Your task to perform on an android device: turn pop-ups on in chrome Image 0: 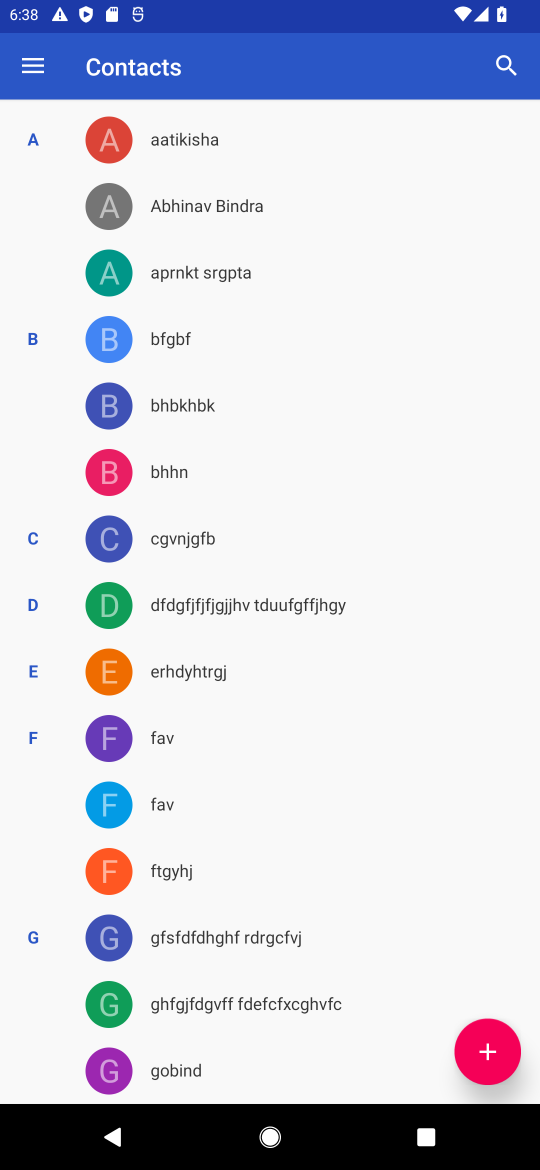
Step 0: press home button
Your task to perform on an android device: turn pop-ups on in chrome Image 1: 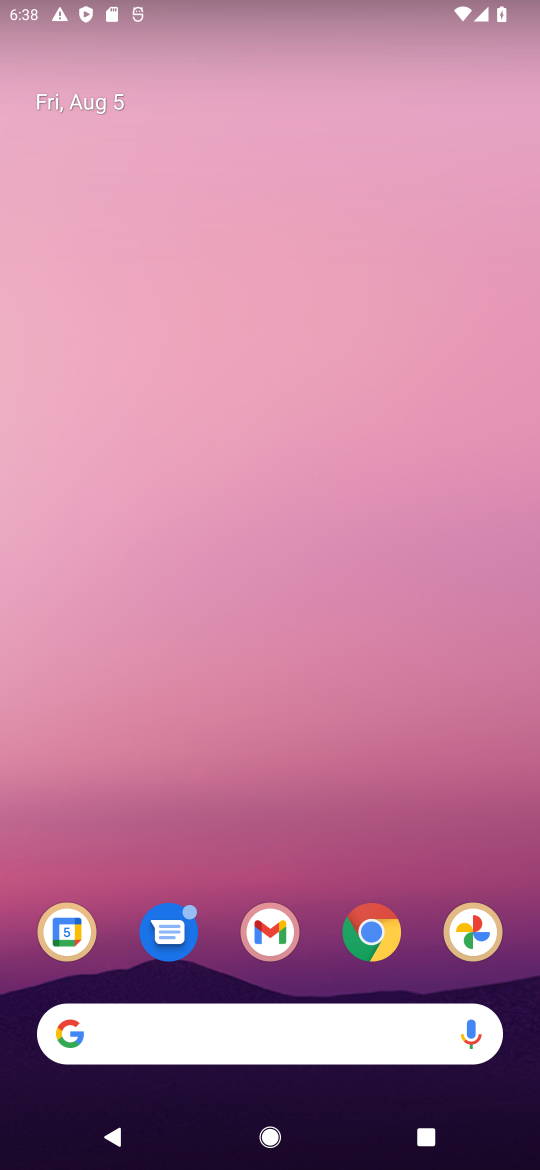
Step 1: click (373, 933)
Your task to perform on an android device: turn pop-ups on in chrome Image 2: 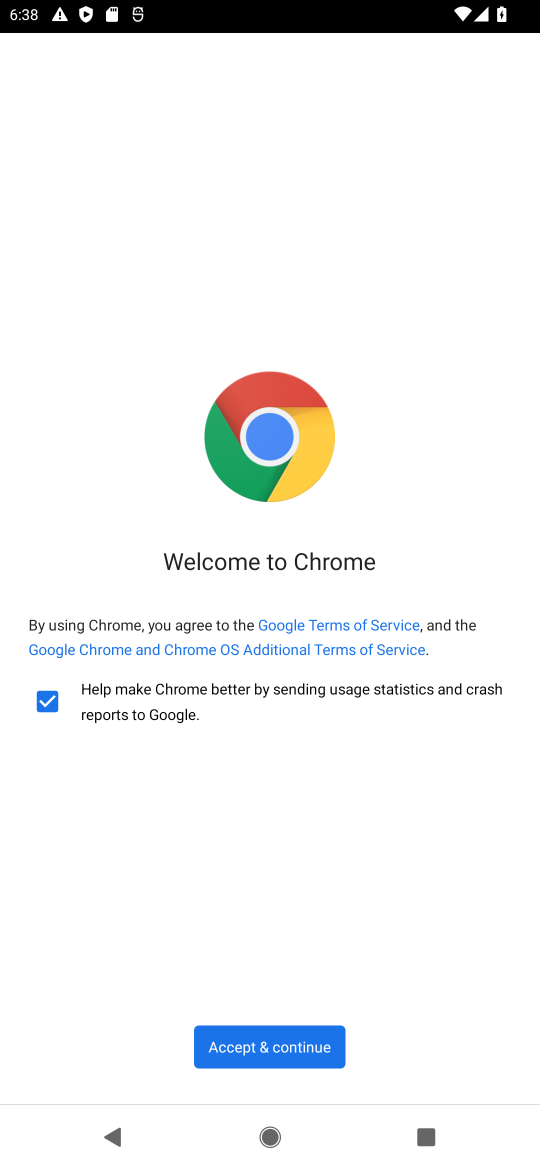
Step 2: click (282, 1047)
Your task to perform on an android device: turn pop-ups on in chrome Image 3: 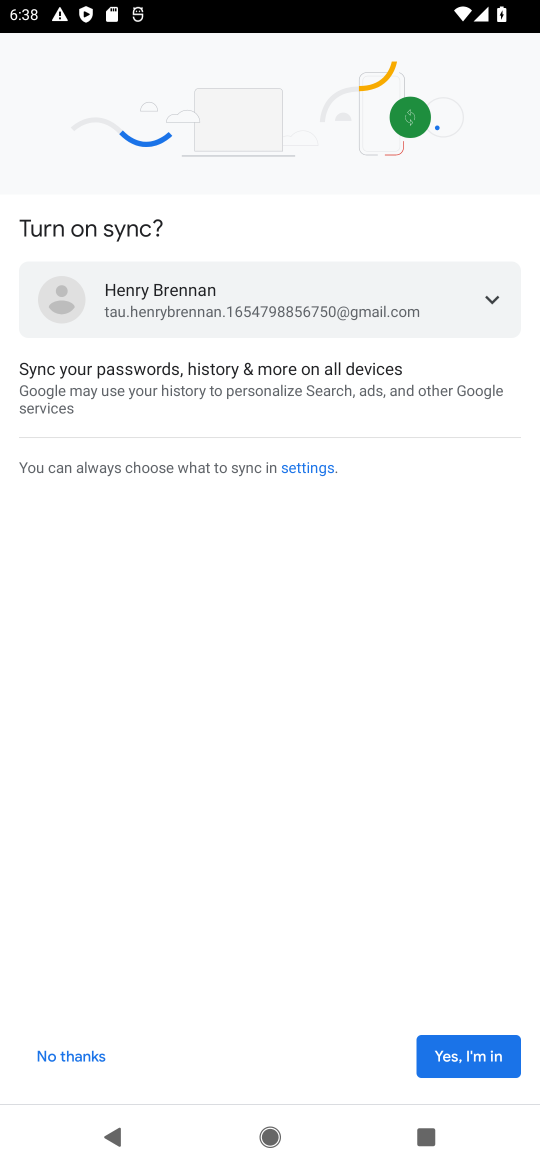
Step 3: click (469, 1060)
Your task to perform on an android device: turn pop-ups on in chrome Image 4: 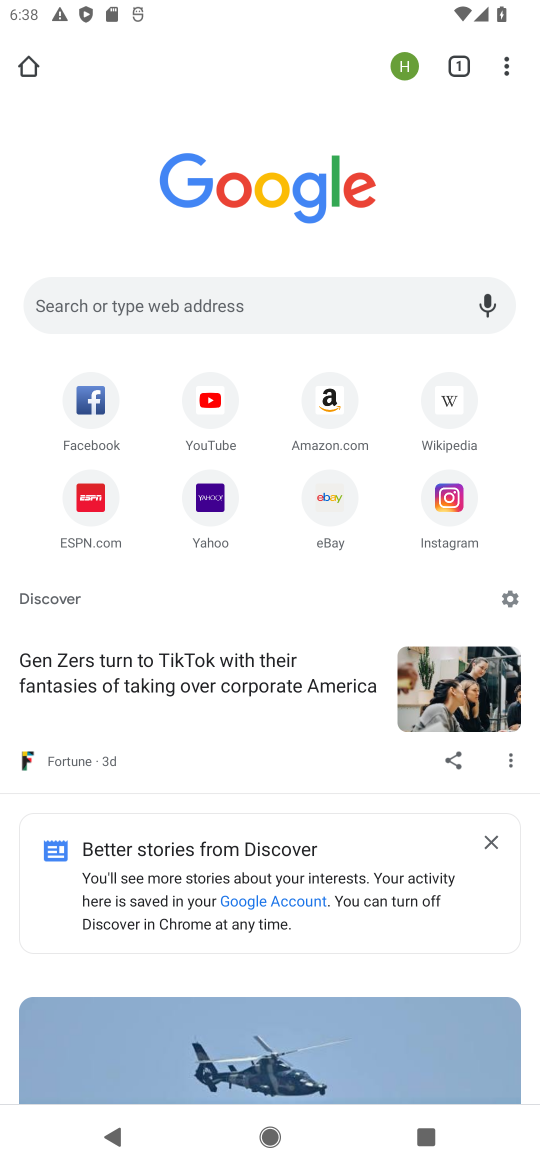
Step 4: click (504, 64)
Your task to perform on an android device: turn pop-ups on in chrome Image 5: 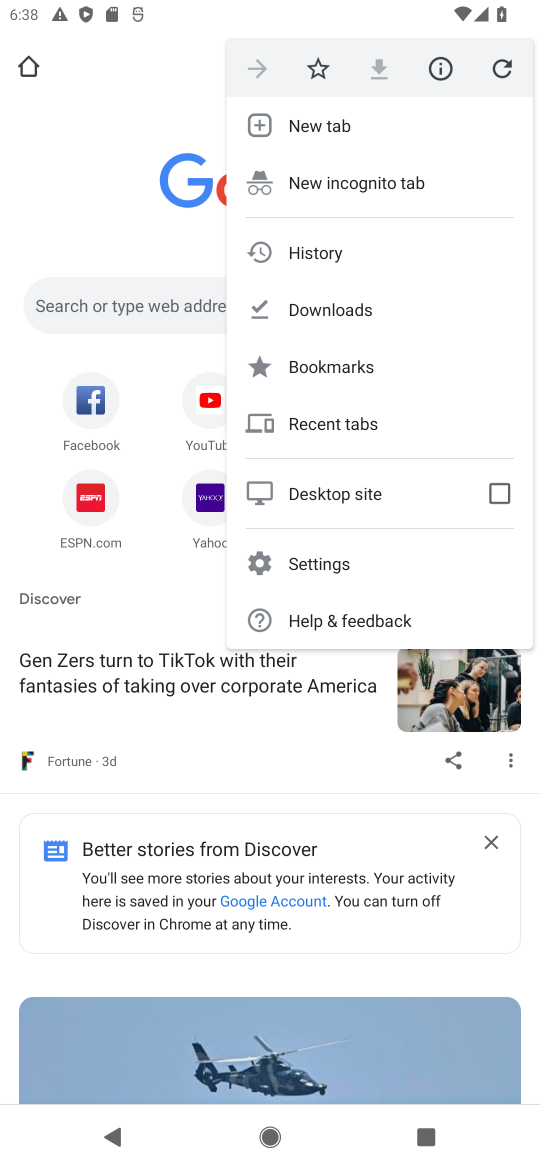
Step 5: click (332, 561)
Your task to perform on an android device: turn pop-ups on in chrome Image 6: 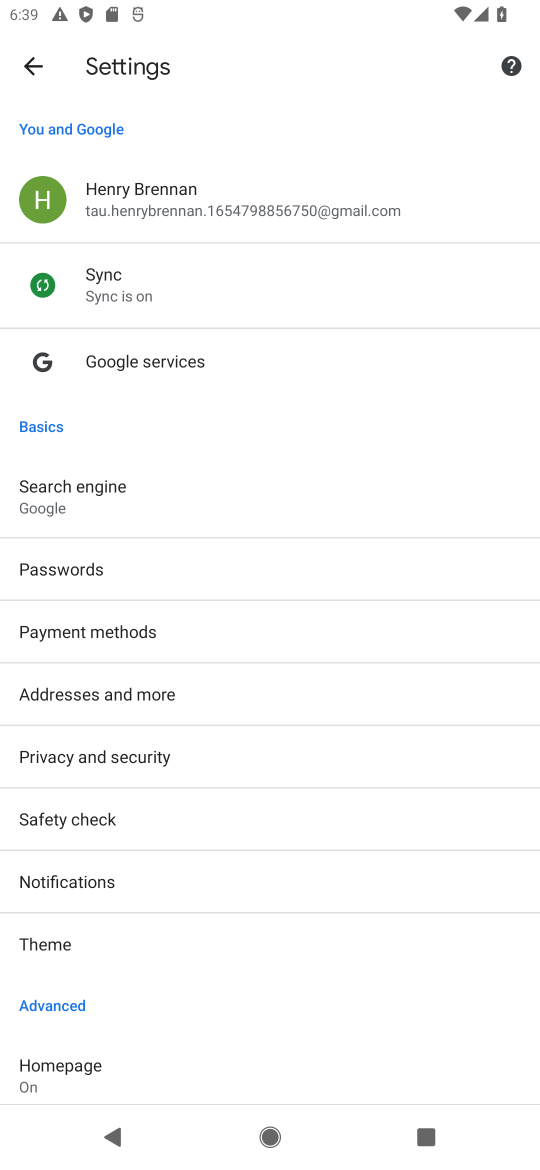
Step 6: drag from (86, 966) to (144, 816)
Your task to perform on an android device: turn pop-ups on in chrome Image 7: 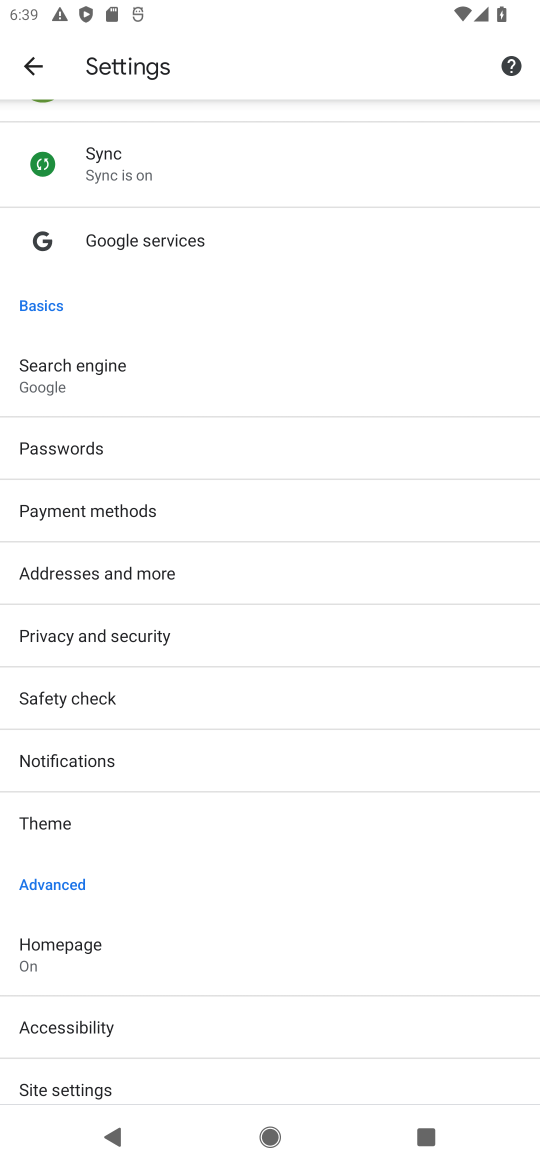
Step 7: drag from (115, 985) to (155, 837)
Your task to perform on an android device: turn pop-ups on in chrome Image 8: 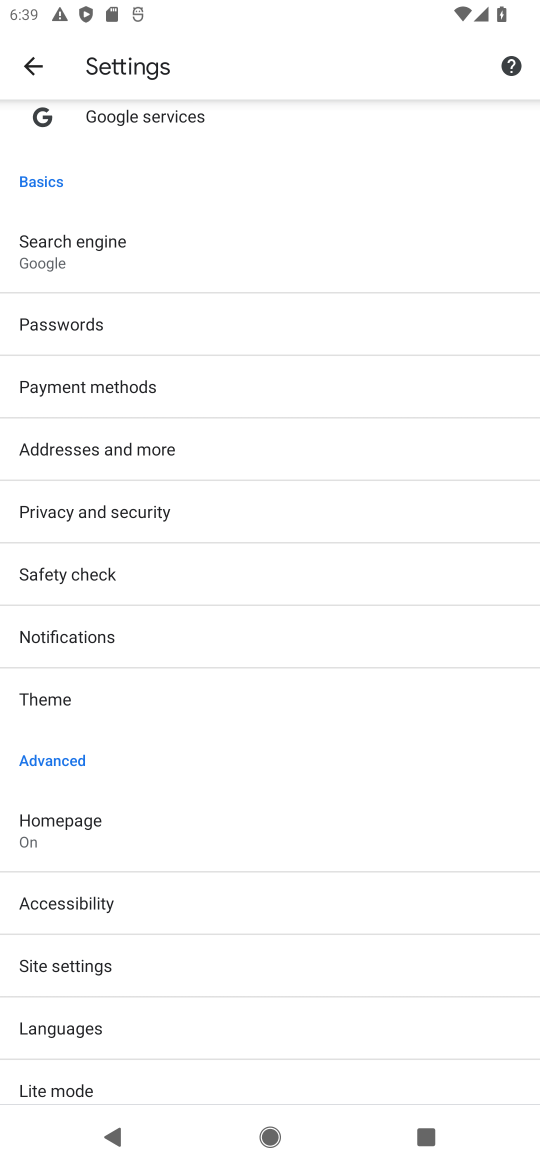
Step 8: click (90, 971)
Your task to perform on an android device: turn pop-ups on in chrome Image 9: 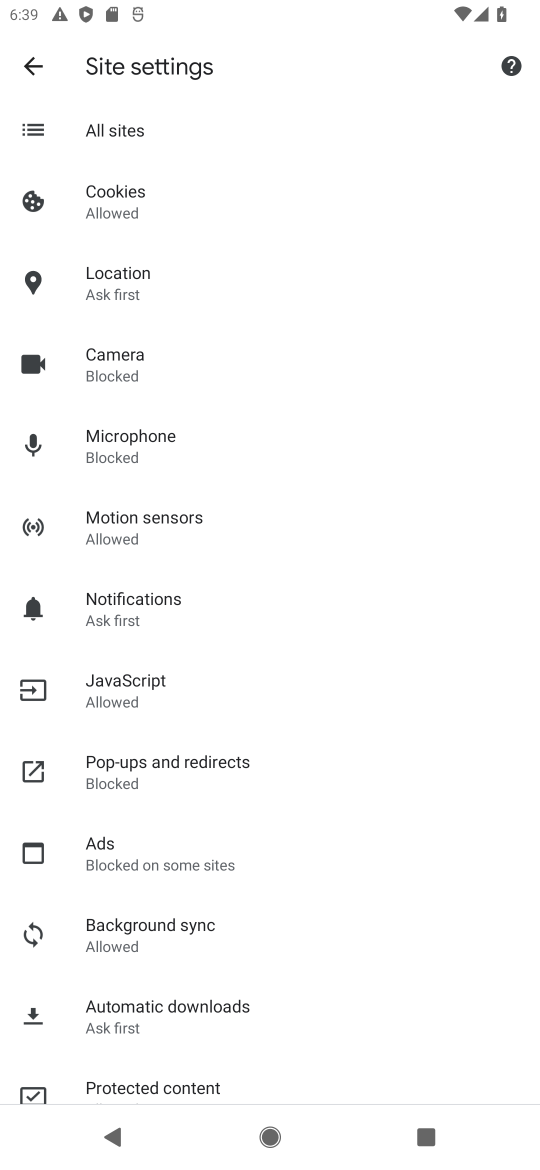
Step 9: click (207, 754)
Your task to perform on an android device: turn pop-ups on in chrome Image 10: 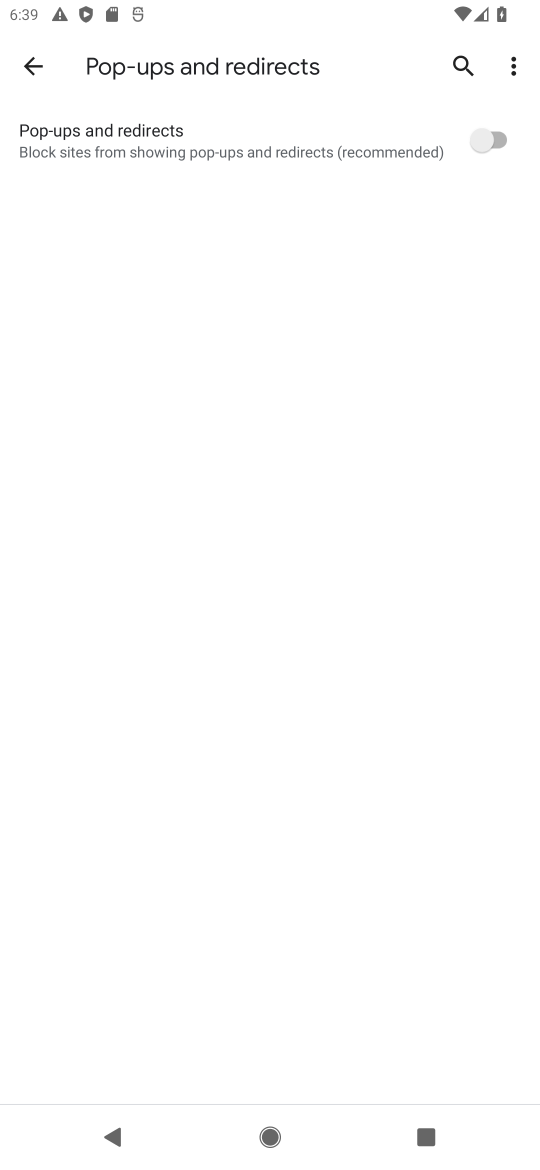
Step 10: click (487, 134)
Your task to perform on an android device: turn pop-ups on in chrome Image 11: 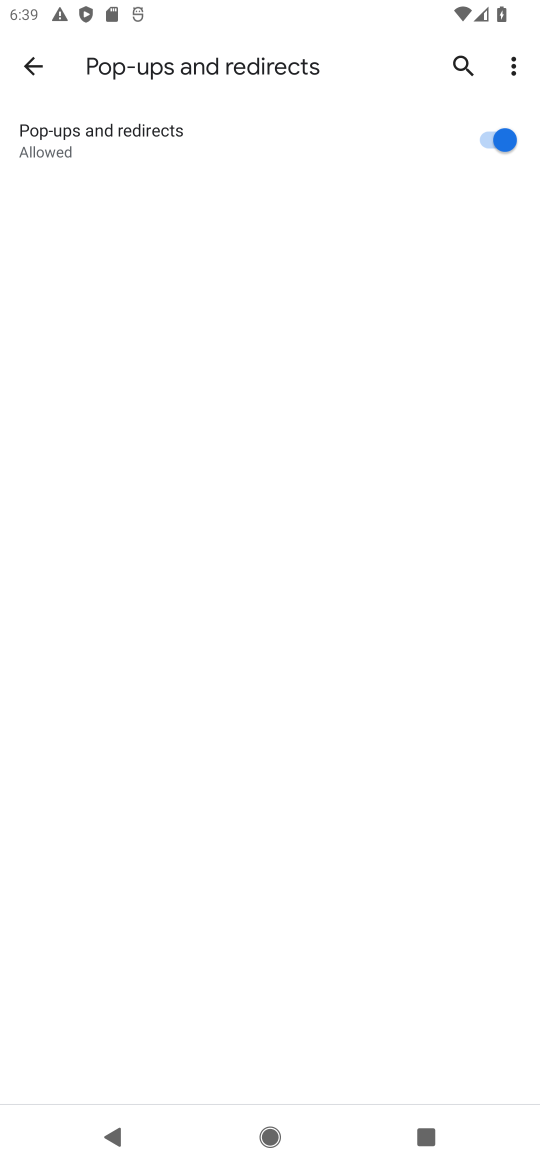
Step 11: task complete